Your task to perform on an android device: Go to ESPN.com Image 0: 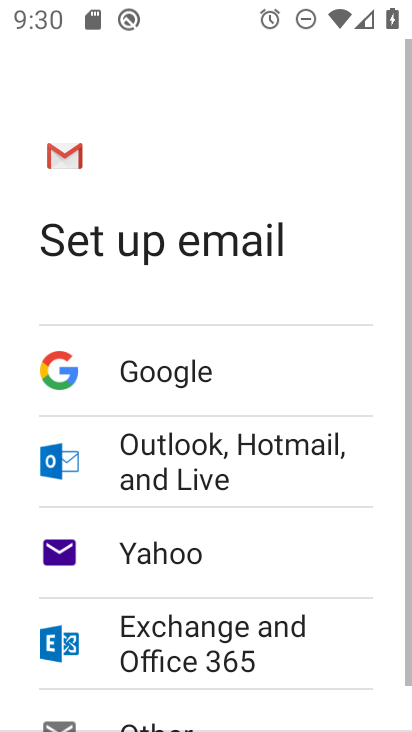
Step 0: press home button
Your task to perform on an android device: Go to ESPN.com Image 1: 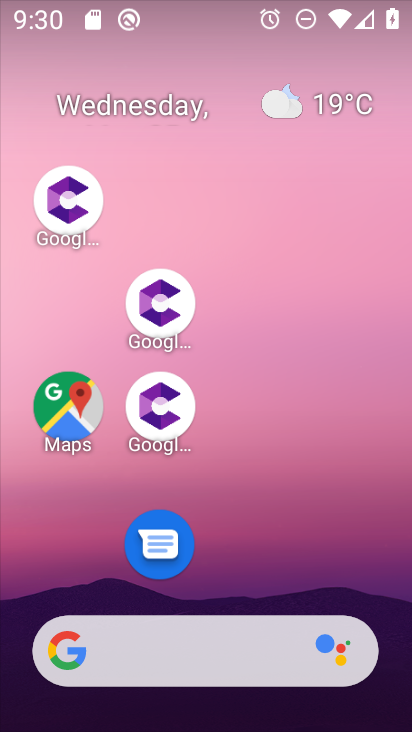
Step 1: drag from (309, 521) to (213, 37)
Your task to perform on an android device: Go to ESPN.com Image 2: 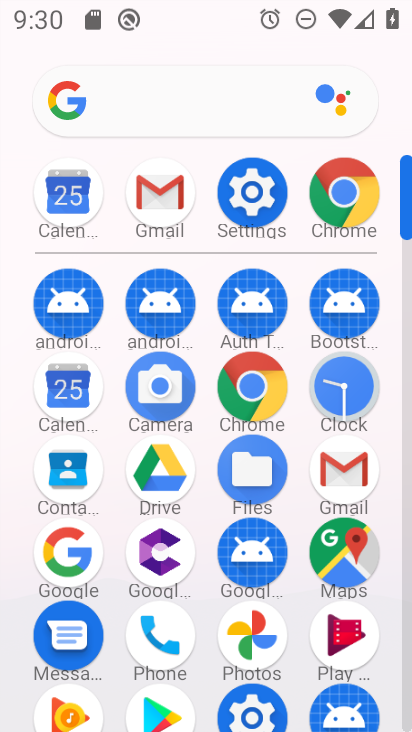
Step 2: click (338, 184)
Your task to perform on an android device: Go to ESPN.com Image 3: 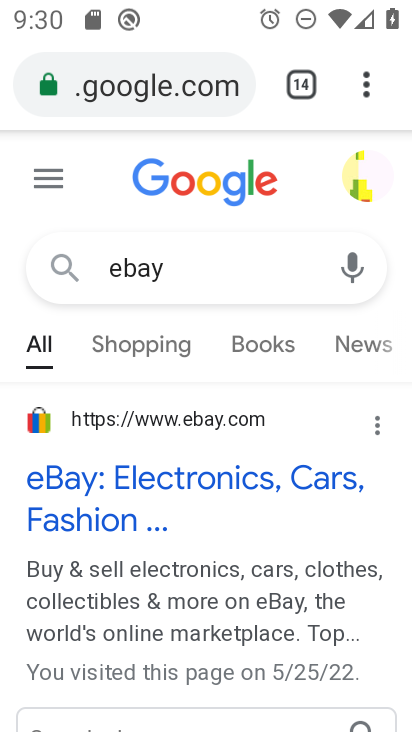
Step 3: click (363, 74)
Your task to perform on an android device: Go to ESPN.com Image 4: 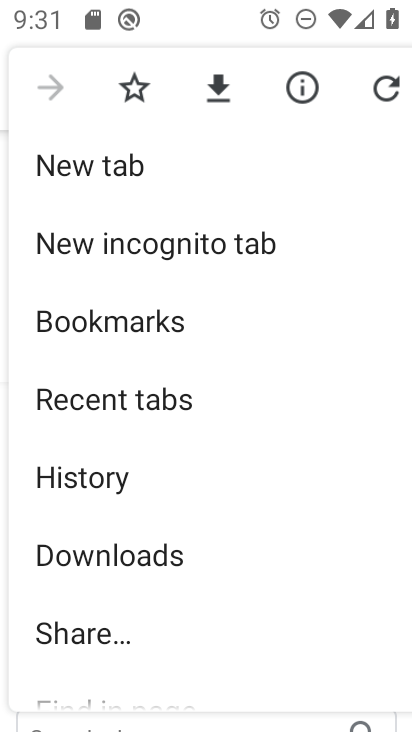
Step 4: click (112, 166)
Your task to perform on an android device: Go to ESPN.com Image 5: 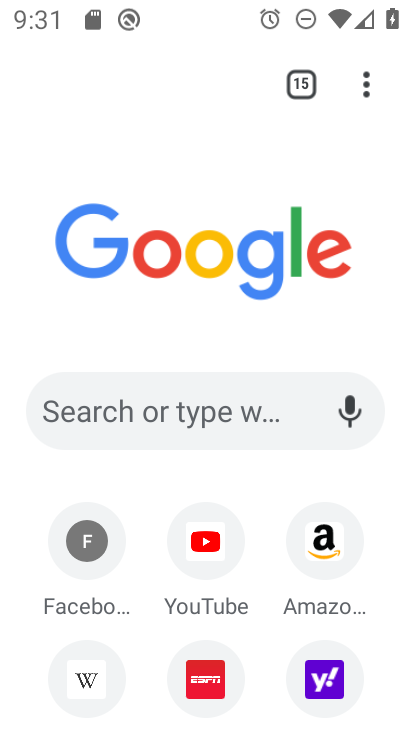
Step 5: click (199, 676)
Your task to perform on an android device: Go to ESPN.com Image 6: 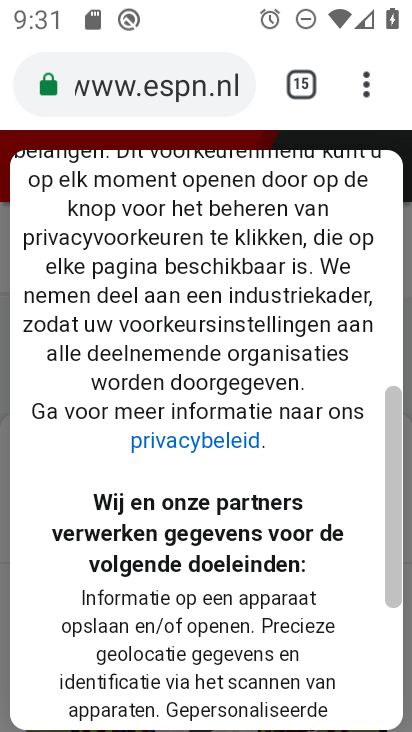
Step 6: task complete